Your task to perform on an android device: Is it going to rain tomorrow? Image 0: 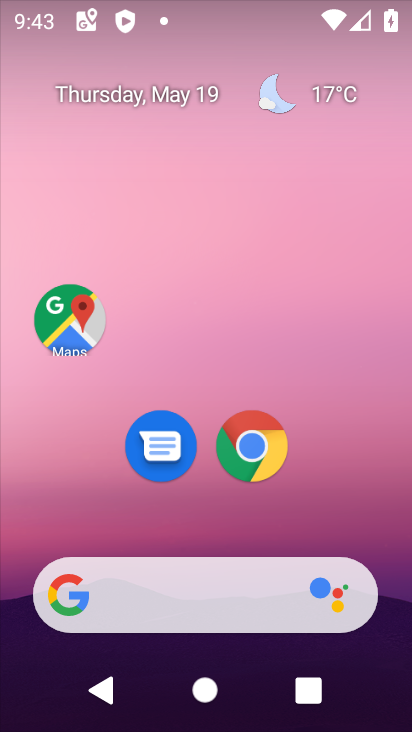
Step 0: click (304, 79)
Your task to perform on an android device: Is it going to rain tomorrow? Image 1: 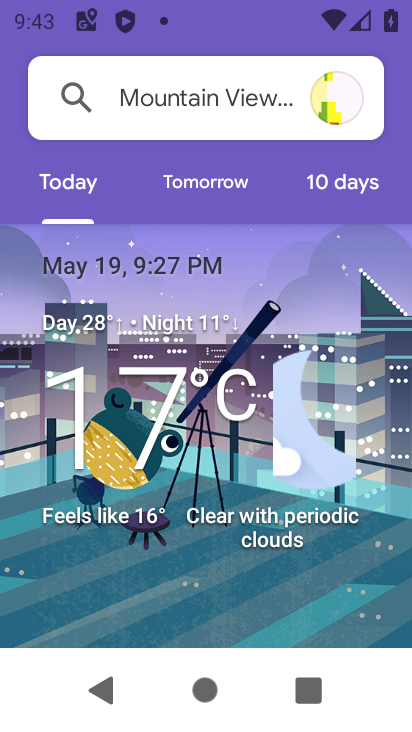
Step 1: click (233, 189)
Your task to perform on an android device: Is it going to rain tomorrow? Image 2: 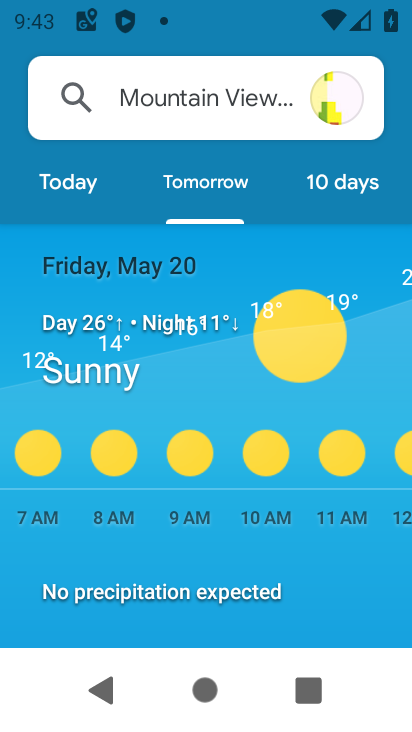
Step 2: task complete